Your task to perform on an android device: turn off improve location accuracy Image 0: 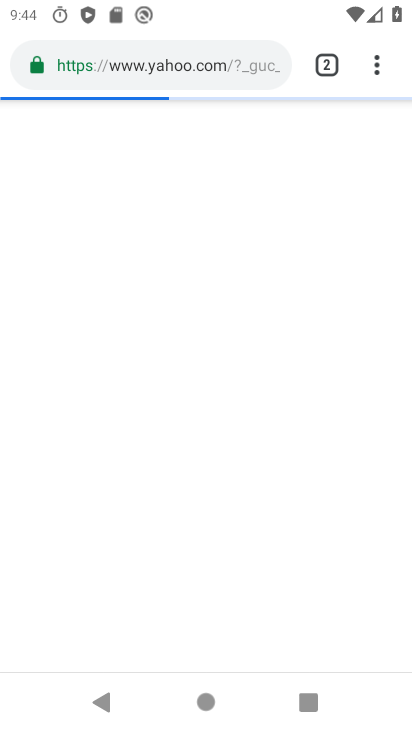
Step 0: press home button
Your task to perform on an android device: turn off improve location accuracy Image 1: 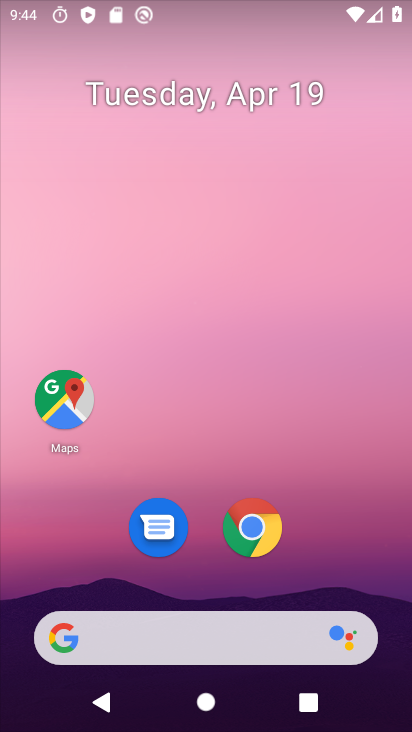
Step 1: drag from (267, 596) to (243, 199)
Your task to perform on an android device: turn off improve location accuracy Image 2: 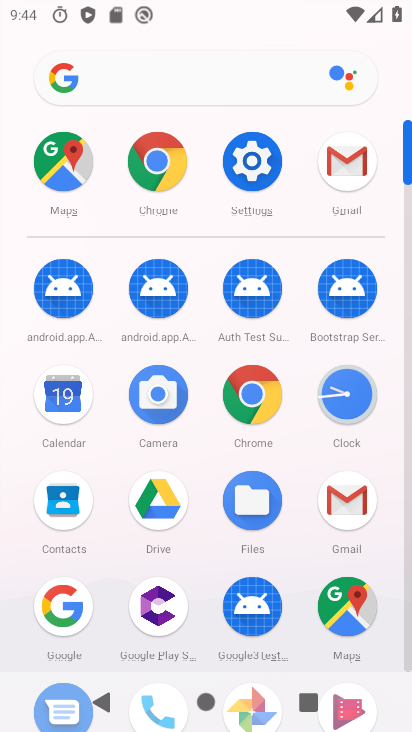
Step 2: click (248, 159)
Your task to perform on an android device: turn off improve location accuracy Image 3: 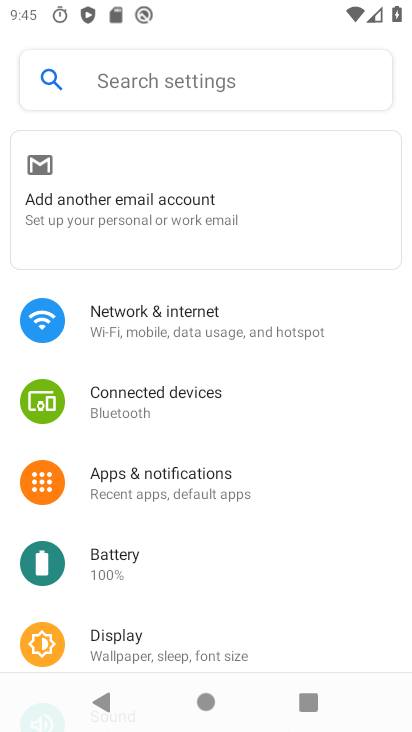
Step 3: click (178, 91)
Your task to perform on an android device: turn off improve location accuracy Image 4: 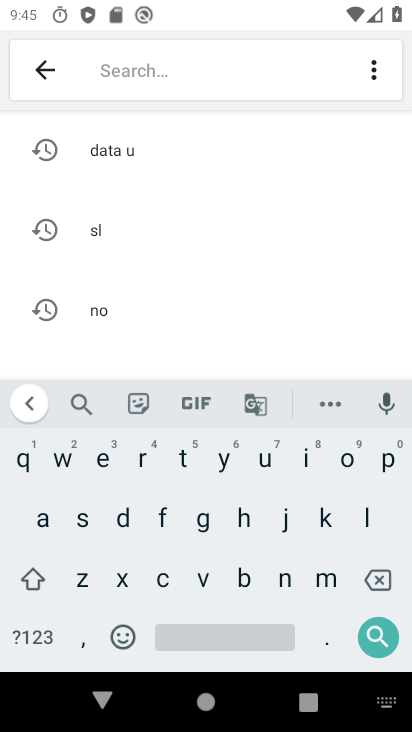
Step 4: drag from (137, 325) to (179, 211)
Your task to perform on an android device: turn off improve location accuracy Image 5: 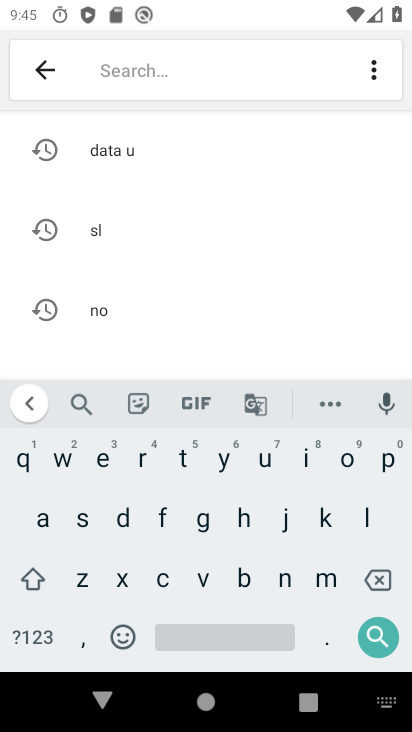
Step 5: click (365, 520)
Your task to perform on an android device: turn off improve location accuracy Image 6: 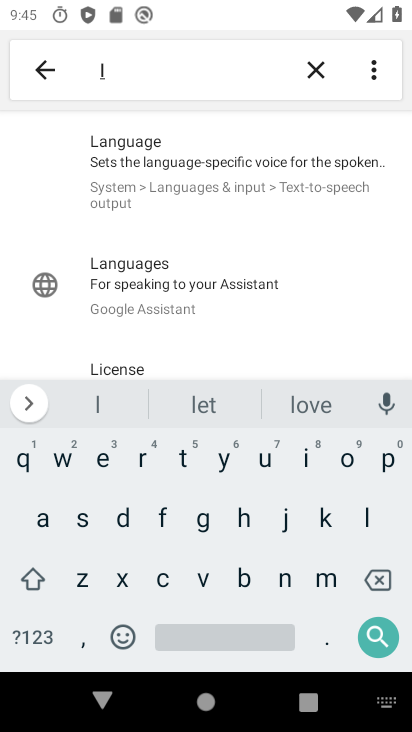
Step 6: drag from (132, 343) to (203, 154)
Your task to perform on an android device: turn off improve location accuracy Image 7: 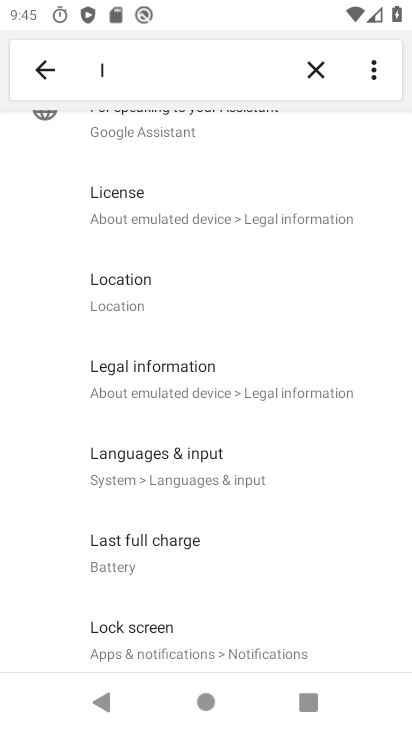
Step 7: click (133, 285)
Your task to perform on an android device: turn off improve location accuracy Image 8: 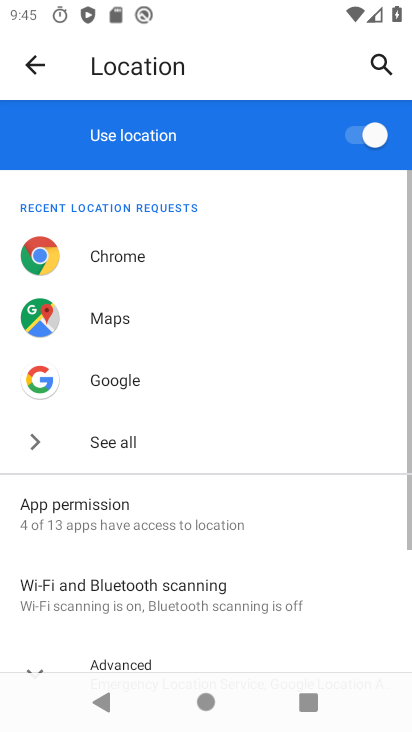
Step 8: drag from (135, 599) to (176, 321)
Your task to perform on an android device: turn off improve location accuracy Image 9: 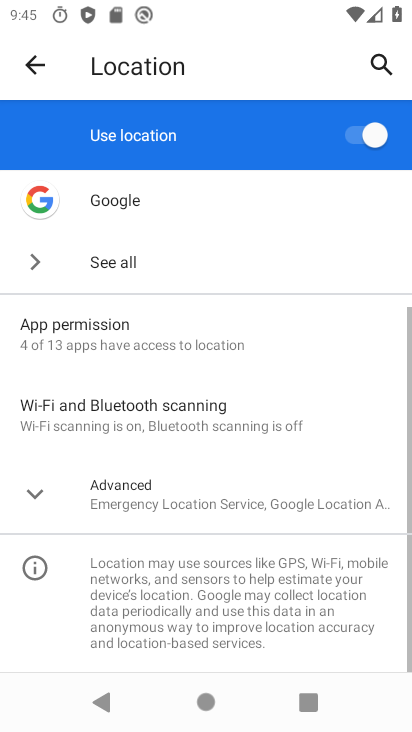
Step 9: click (78, 493)
Your task to perform on an android device: turn off improve location accuracy Image 10: 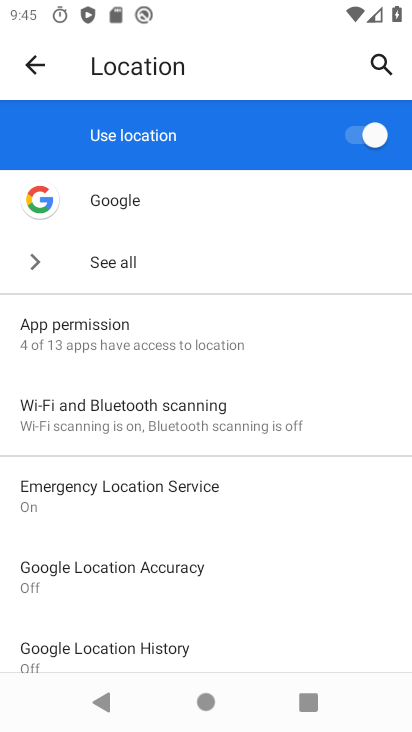
Step 10: drag from (161, 538) to (234, 203)
Your task to perform on an android device: turn off improve location accuracy Image 11: 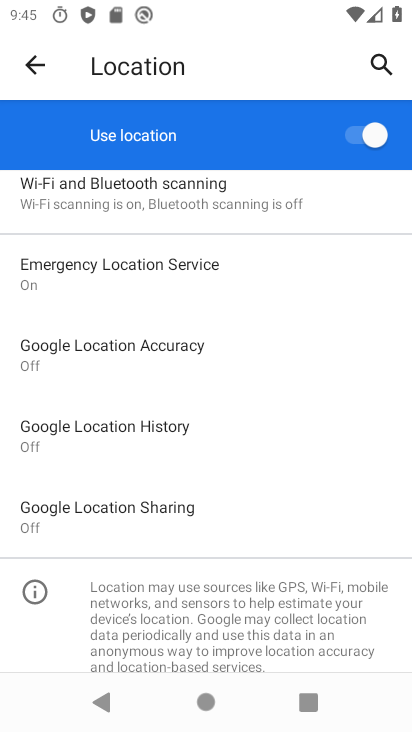
Step 11: click (139, 345)
Your task to perform on an android device: turn off improve location accuracy Image 12: 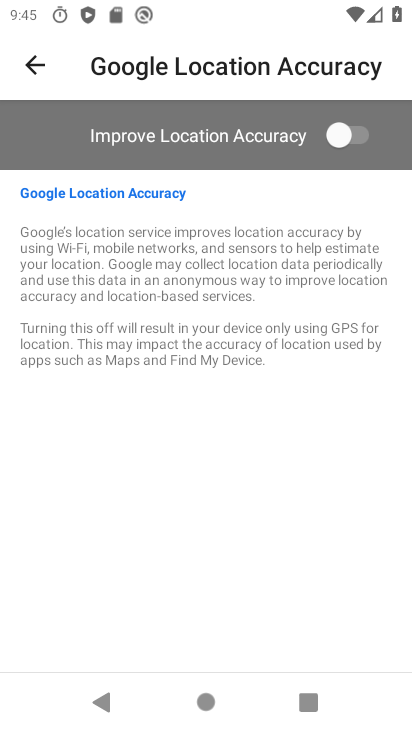
Step 12: click (325, 141)
Your task to perform on an android device: turn off improve location accuracy Image 13: 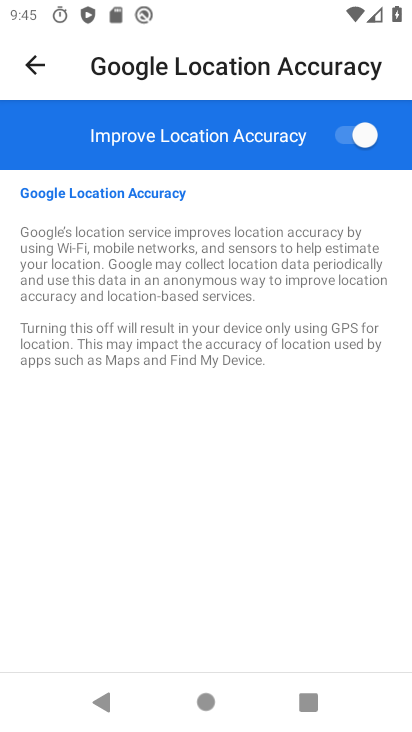
Step 13: click (324, 142)
Your task to perform on an android device: turn off improve location accuracy Image 14: 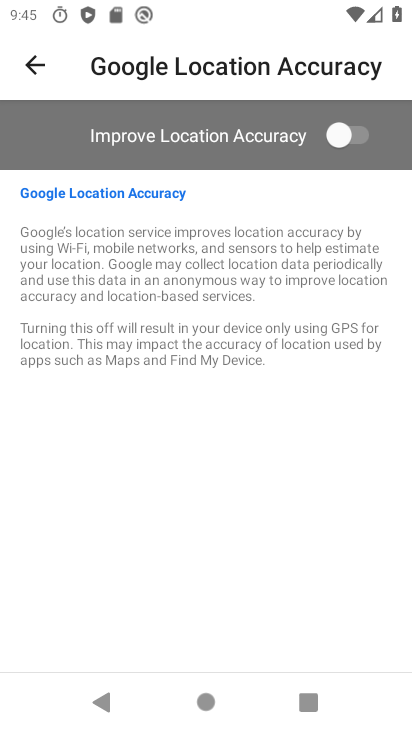
Step 14: task complete